Your task to perform on an android device: check the backup settings in the google photos Image 0: 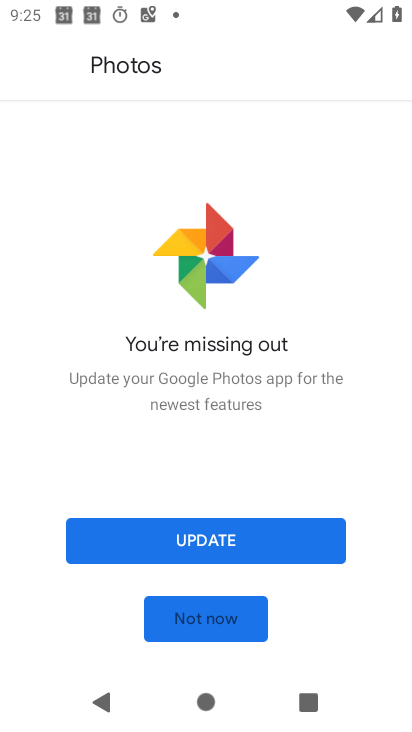
Step 0: press home button
Your task to perform on an android device: check the backup settings in the google photos Image 1: 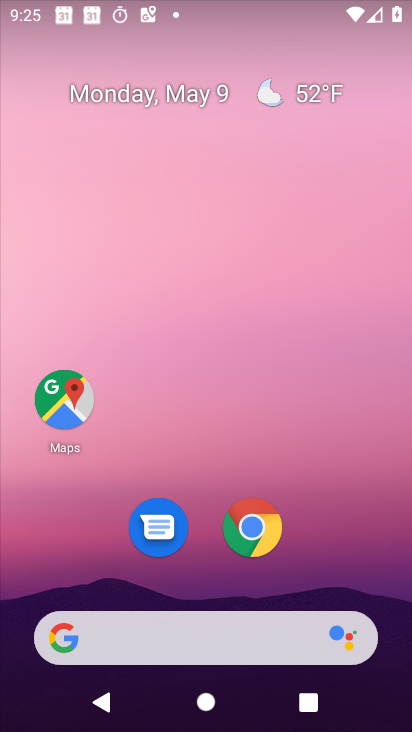
Step 1: drag from (318, 453) to (310, 121)
Your task to perform on an android device: check the backup settings in the google photos Image 2: 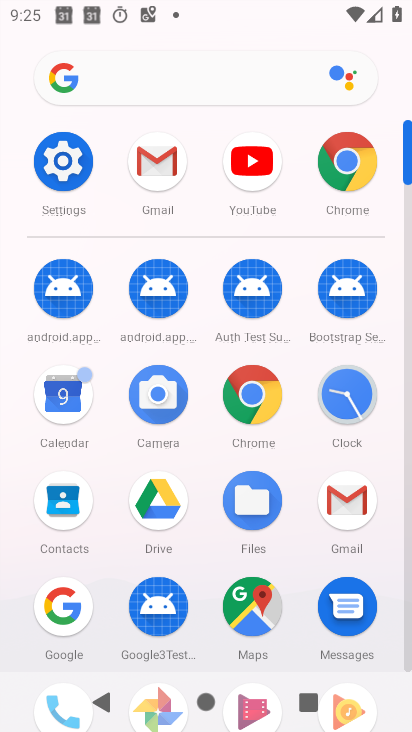
Step 2: drag from (172, 592) to (181, 297)
Your task to perform on an android device: check the backup settings in the google photos Image 3: 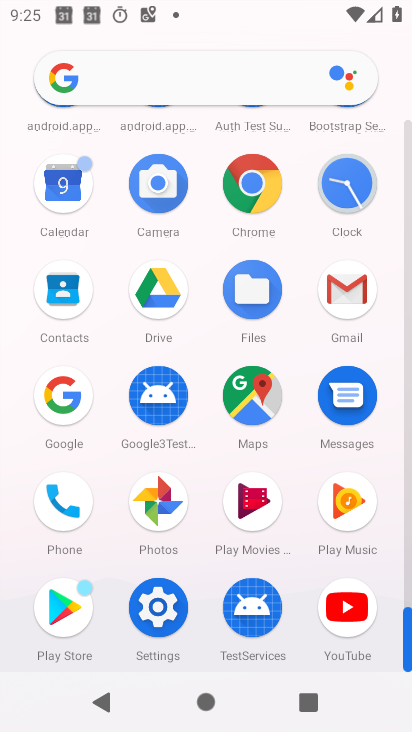
Step 3: click (165, 508)
Your task to perform on an android device: check the backup settings in the google photos Image 4: 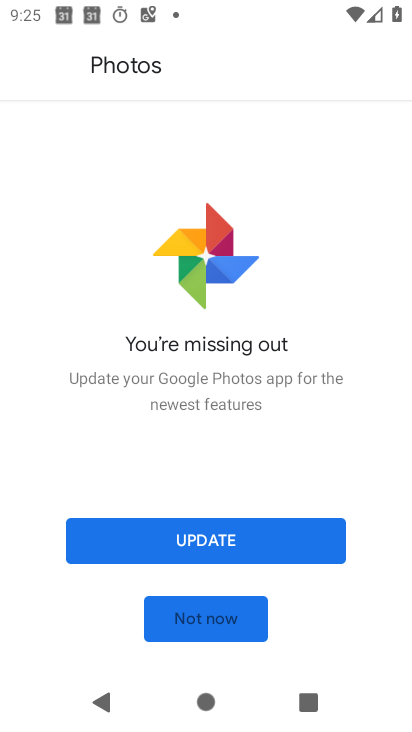
Step 4: click (219, 610)
Your task to perform on an android device: check the backup settings in the google photos Image 5: 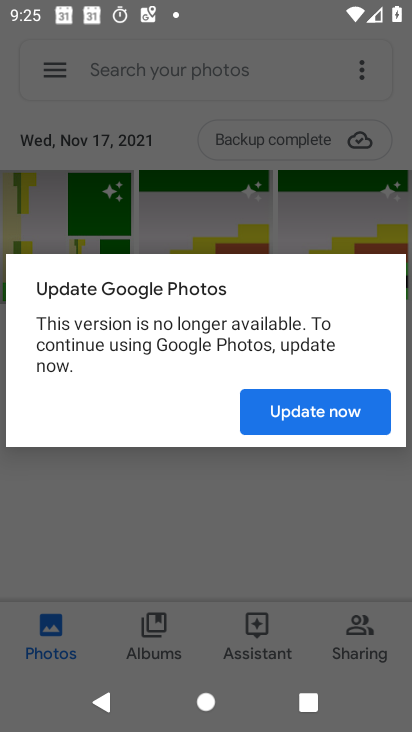
Step 5: click (339, 418)
Your task to perform on an android device: check the backup settings in the google photos Image 6: 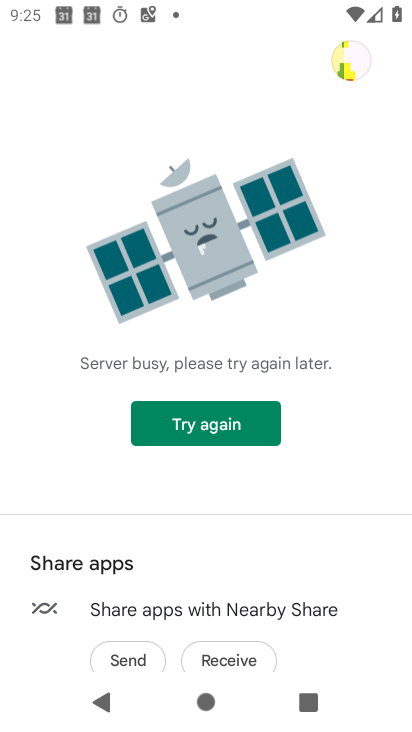
Step 6: task complete